Your task to perform on an android device: set the stopwatch Image 0: 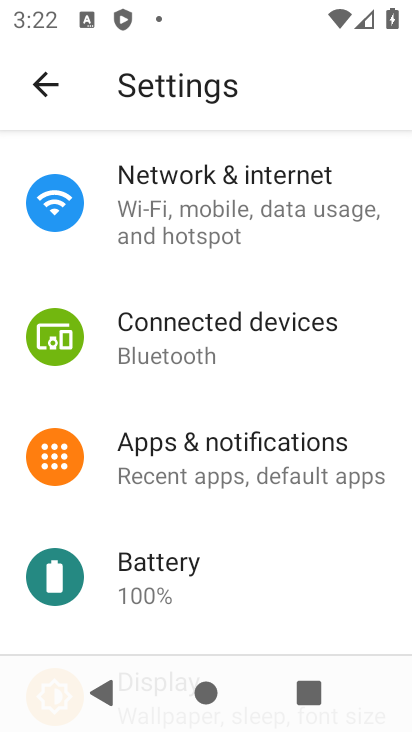
Step 0: task complete